Your task to perform on an android device: Go to wifi settings Image 0: 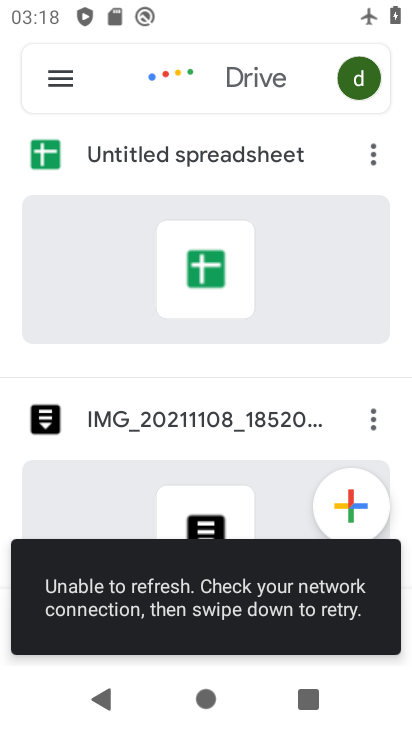
Step 0: press home button
Your task to perform on an android device: Go to wifi settings Image 1: 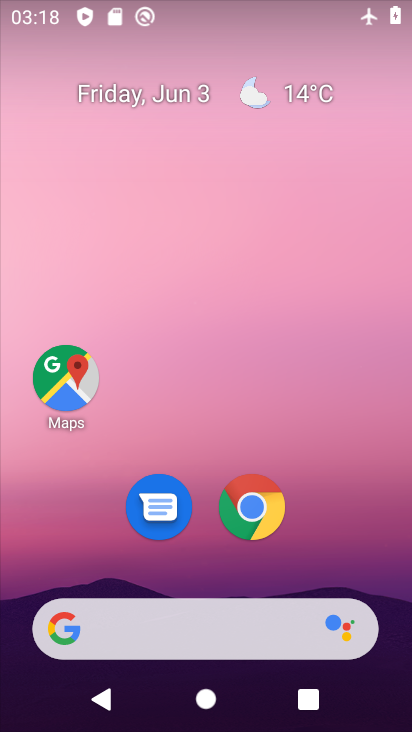
Step 1: drag from (350, 560) to (323, 148)
Your task to perform on an android device: Go to wifi settings Image 2: 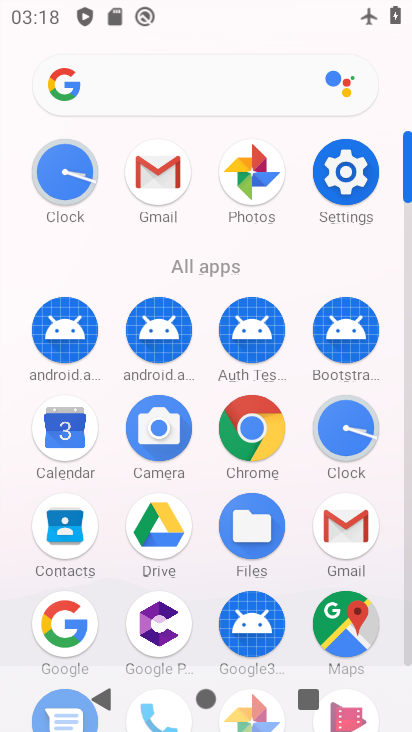
Step 2: click (341, 183)
Your task to perform on an android device: Go to wifi settings Image 3: 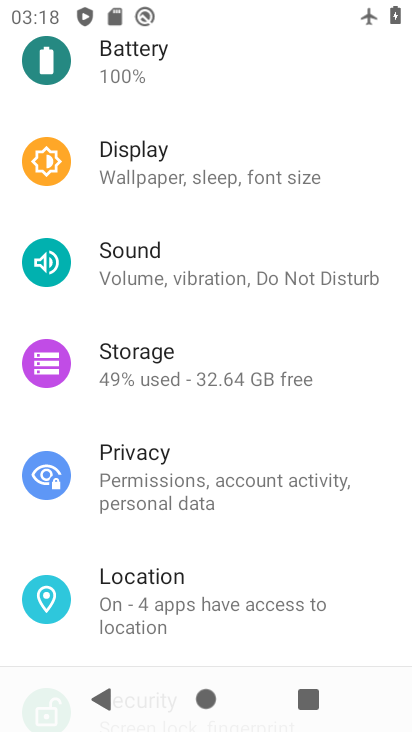
Step 3: drag from (363, 59) to (294, 687)
Your task to perform on an android device: Go to wifi settings Image 4: 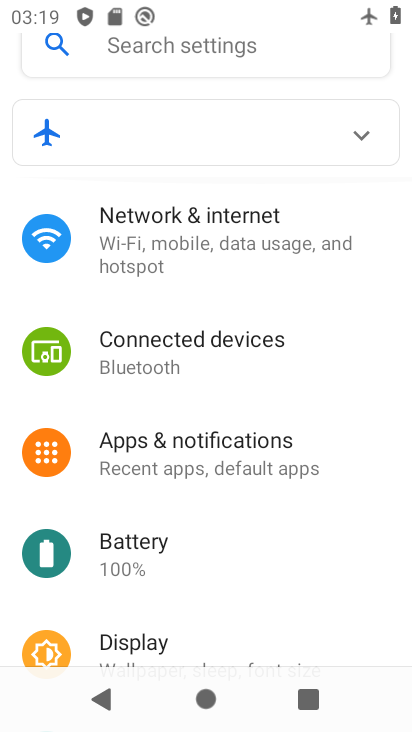
Step 4: click (188, 280)
Your task to perform on an android device: Go to wifi settings Image 5: 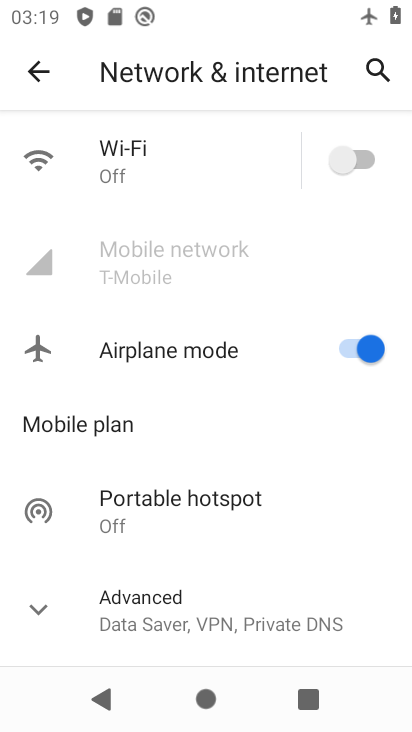
Step 5: click (152, 166)
Your task to perform on an android device: Go to wifi settings Image 6: 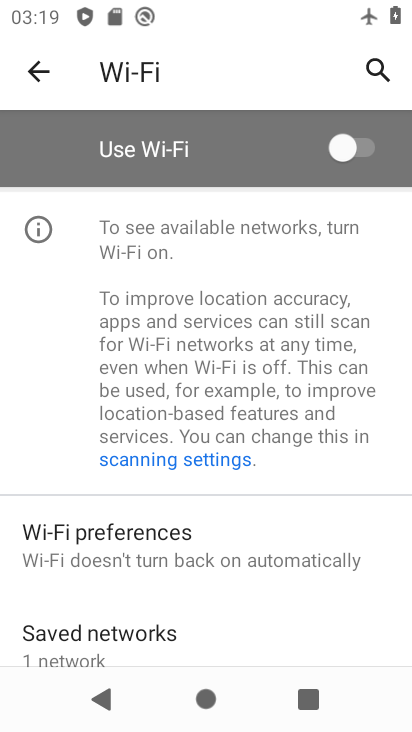
Step 6: task complete